Your task to perform on an android device: toggle location history Image 0: 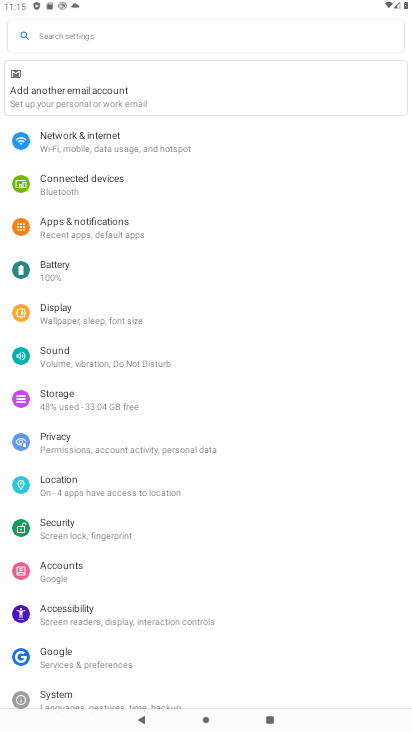
Step 0: click (77, 484)
Your task to perform on an android device: toggle location history Image 1: 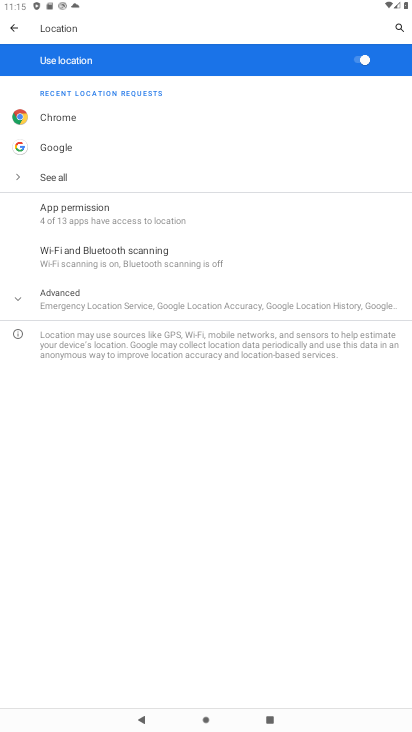
Step 1: click (72, 305)
Your task to perform on an android device: toggle location history Image 2: 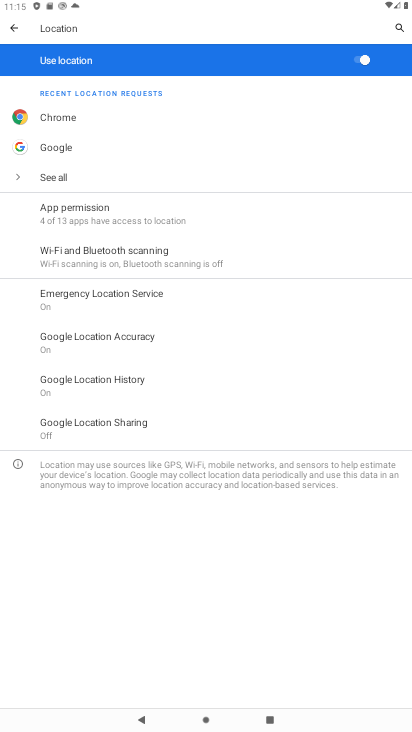
Step 2: click (75, 385)
Your task to perform on an android device: toggle location history Image 3: 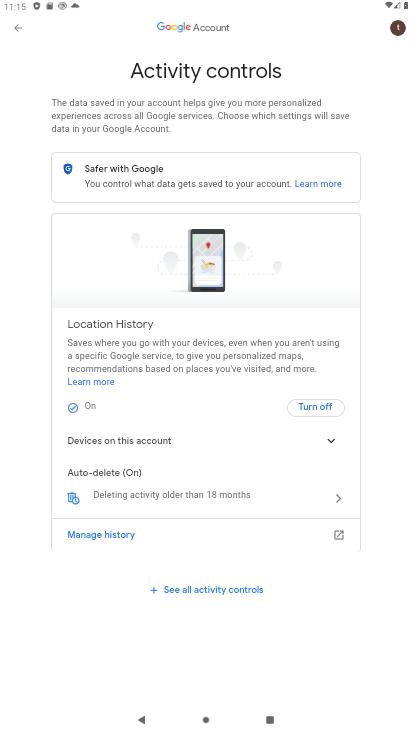
Step 3: click (312, 405)
Your task to perform on an android device: toggle location history Image 4: 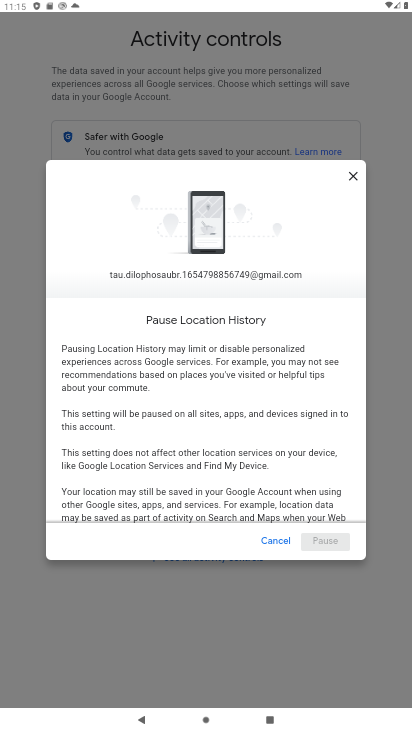
Step 4: drag from (290, 505) to (254, 135)
Your task to perform on an android device: toggle location history Image 5: 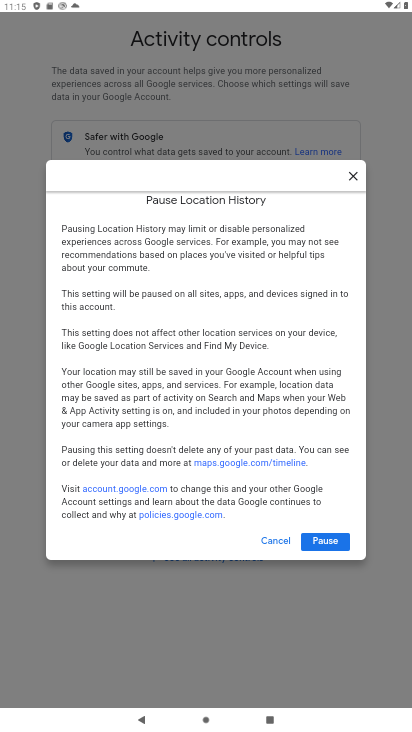
Step 5: click (326, 542)
Your task to perform on an android device: toggle location history Image 6: 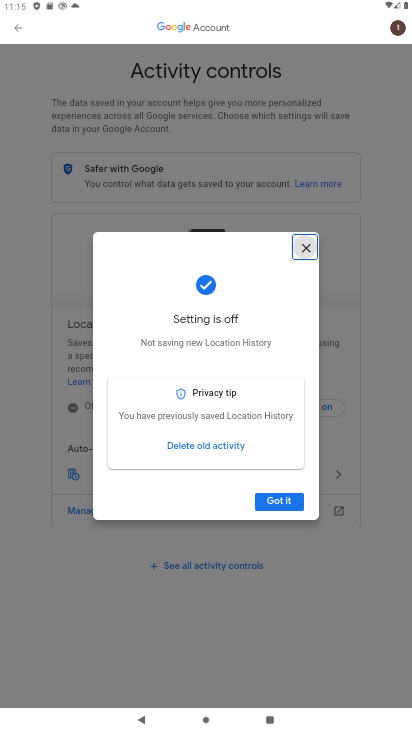
Step 6: click (293, 502)
Your task to perform on an android device: toggle location history Image 7: 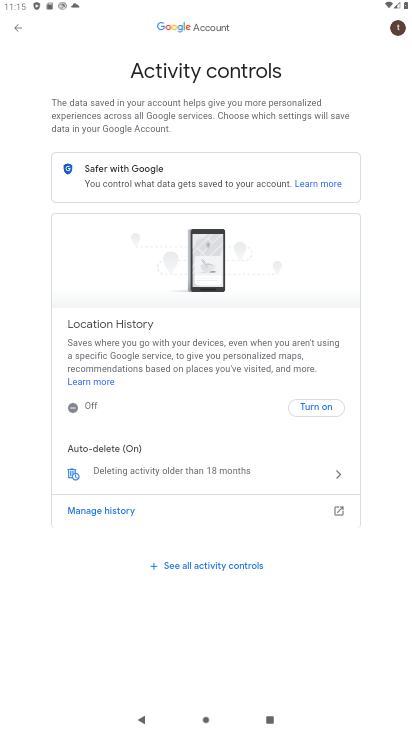
Step 7: task complete